Your task to perform on an android device: toggle show notifications on the lock screen Image 0: 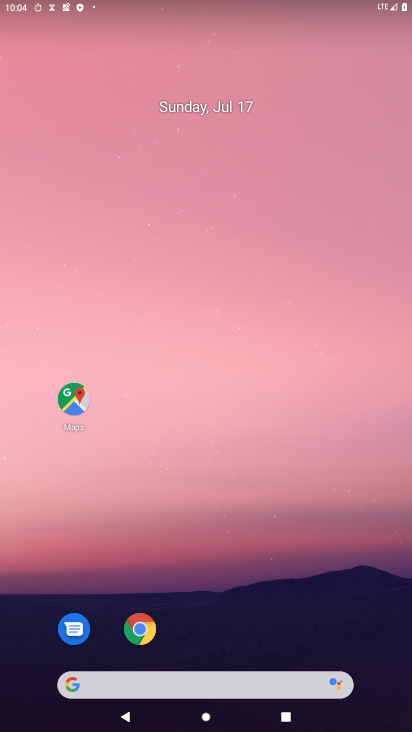
Step 0: drag from (234, 730) to (224, 100)
Your task to perform on an android device: toggle show notifications on the lock screen Image 1: 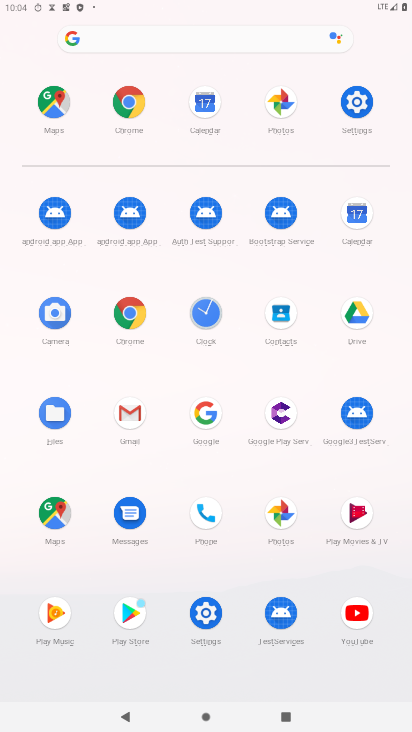
Step 1: click (352, 96)
Your task to perform on an android device: toggle show notifications on the lock screen Image 2: 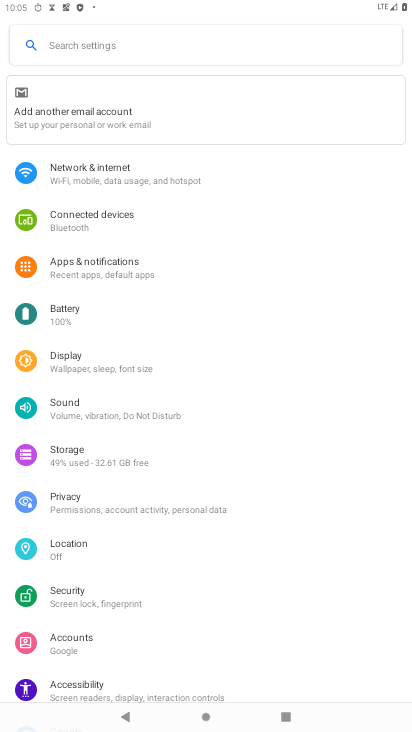
Step 2: click (110, 264)
Your task to perform on an android device: toggle show notifications on the lock screen Image 3: 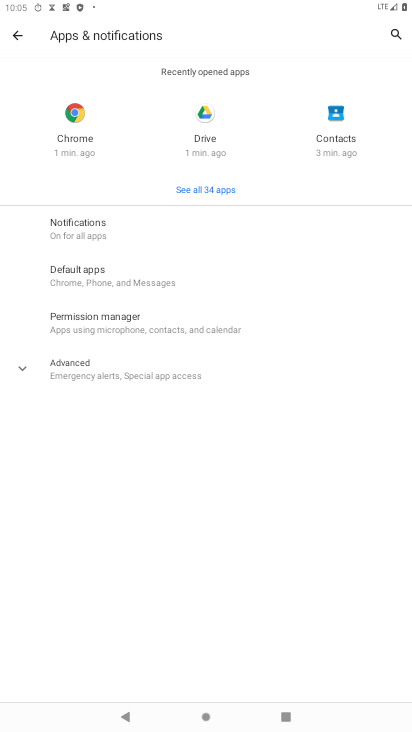
Step 3: click (80, 227)
Your task to perform on an android device: toggle show notifications on the lock screen Image 4: 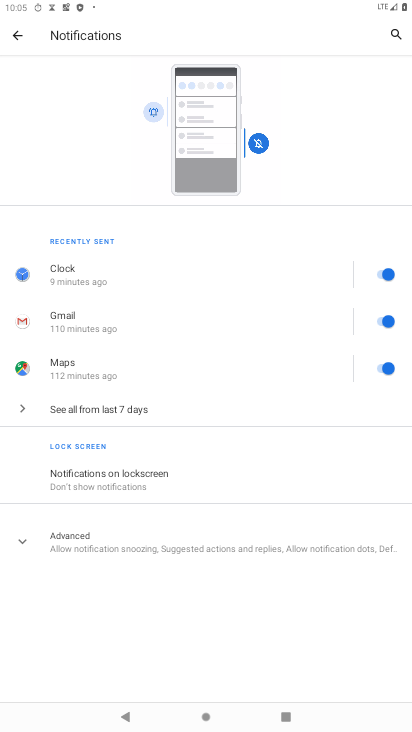
Step 4: click (91, 481)
Your task to perform on an android device: toggle show notifications on the lock screen Image 5: 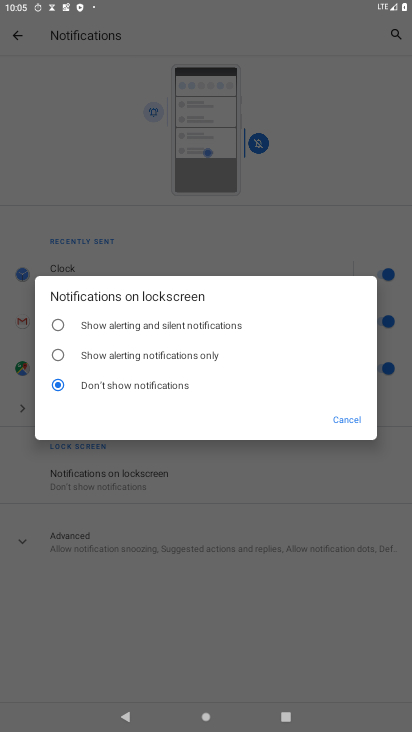
Step 5: click (57, 324)
Your task to perform on an android device: toggle show notifications on the lock screen Image 6: 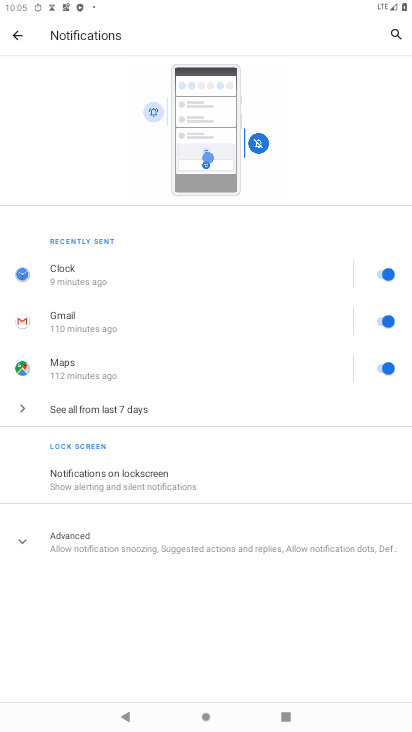
Step 6: task complete